Your task to perform on an android device: move an email to a new category in the gmail app Image 0: 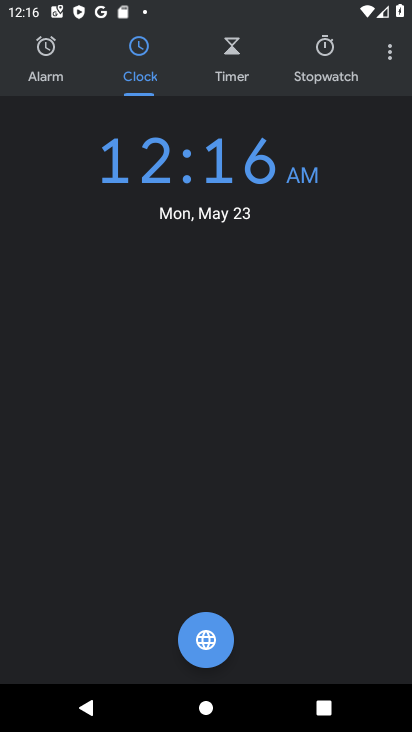
Step 0: press home button
Your task to perform on an android device: move an email to a new category in the gmail app Image 1: 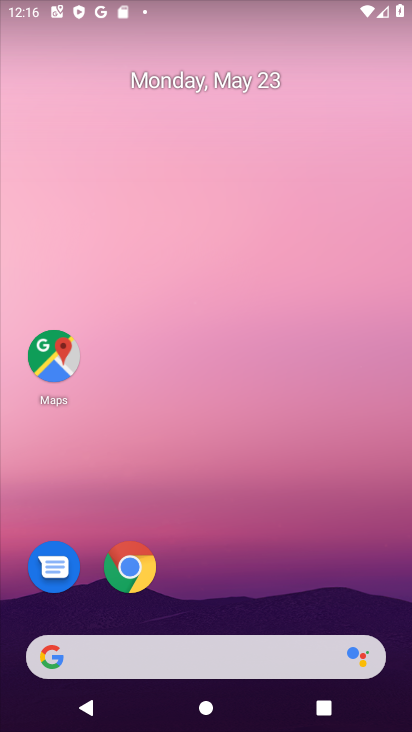
Step 1: drag from (234, 614) to (197, 13)
Your task to perform on an android device: move an email to a new category in the gmail app Image 2: 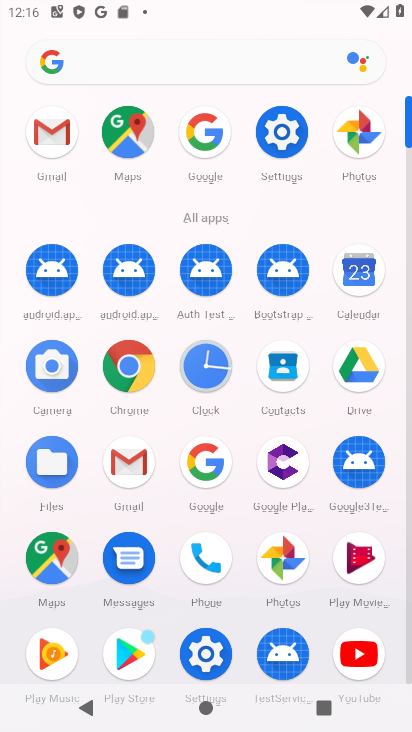
Step 2: click (59, 129)
Your task to perform on an android device: move an email to a new category in the gmail app Image 3: 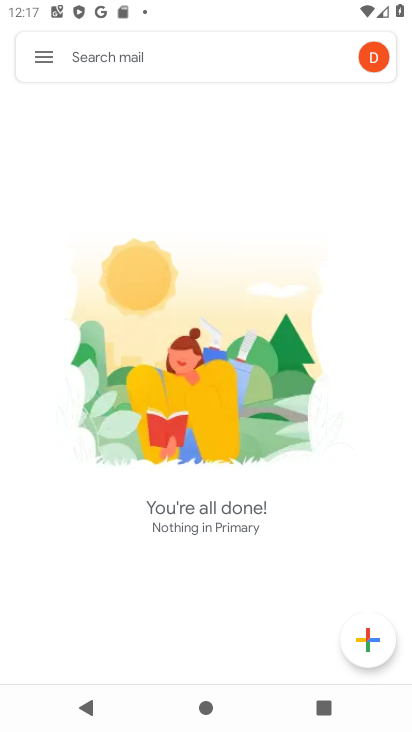
Step 3: click (41, 65)
Your task to perform on an android device: move an email to a new category in the gmail app Image 4: 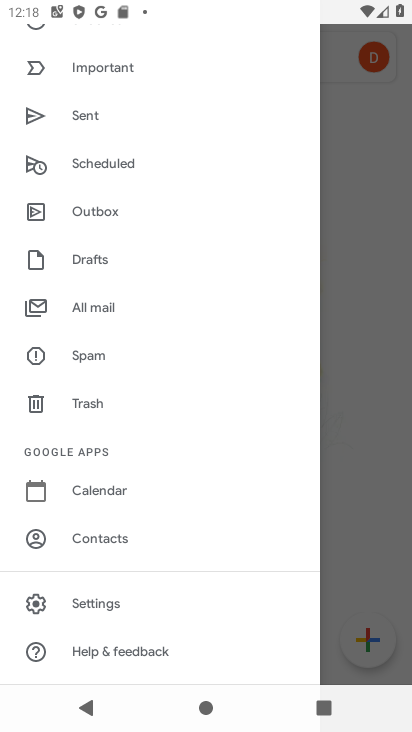
Step 4: click (153, 311)
Your task to perform on an android device: move an email to a new category in the gmail app Image 5: 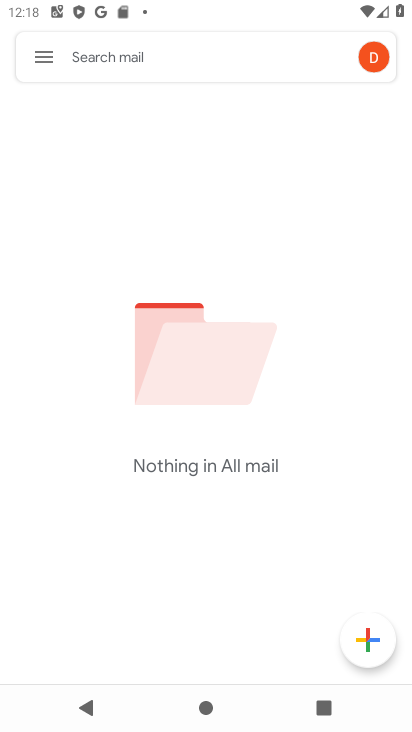
Step 5: task complete